Your task to perform on an android device: search for starred emails in the gmail app Image 0: 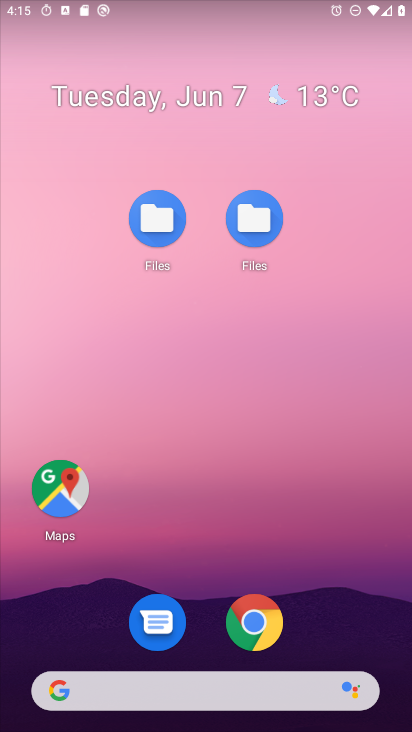
Step 0: drag from (368, 579) to (388, 286)
Your task to perform on an android device: search for starred emails in the gmail app Image 1: 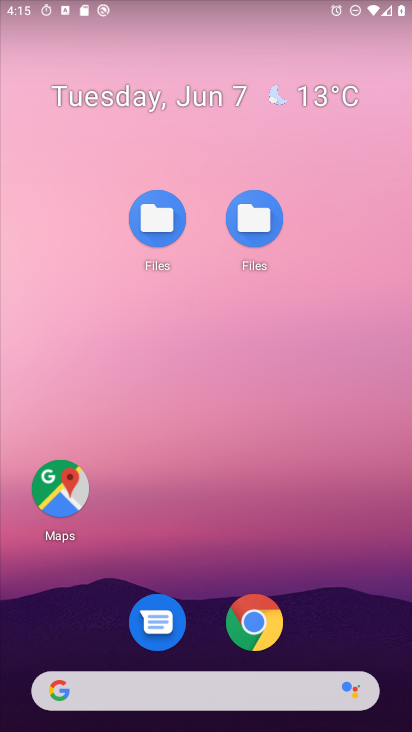
Step 1: drag from (357, 639) to (340, 140)
Your task to perform on an android device: search for starred emails in the gmail app Image 2: 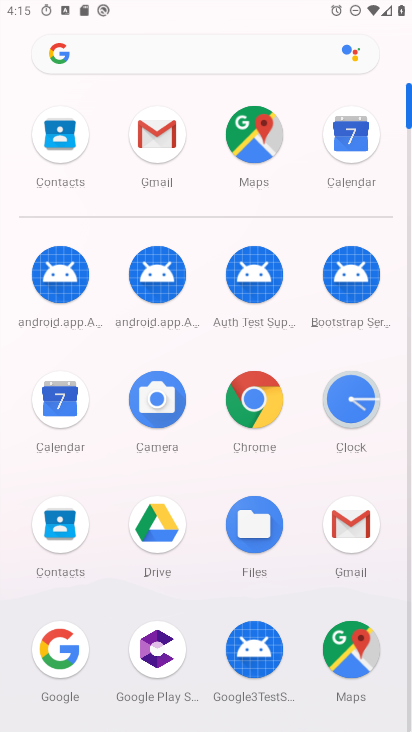
Step 2: click (147, 144)
Your task to perform on an android device: search for starred emails in the gmail app Image 3: 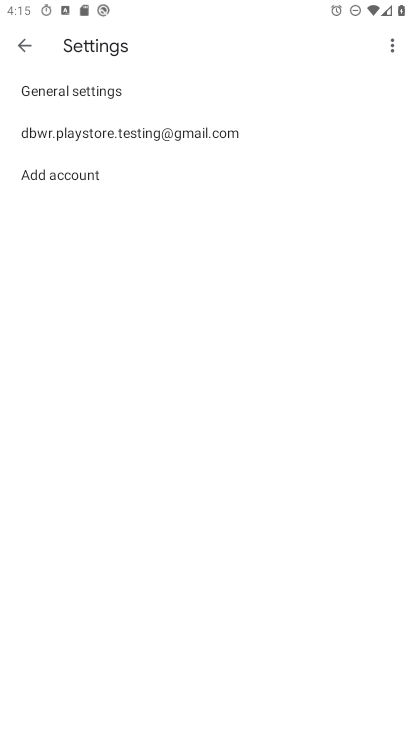
Step 3: click (21, 45)
Your task to perform on an android device: search for starred emails in the gmail app Image 4: 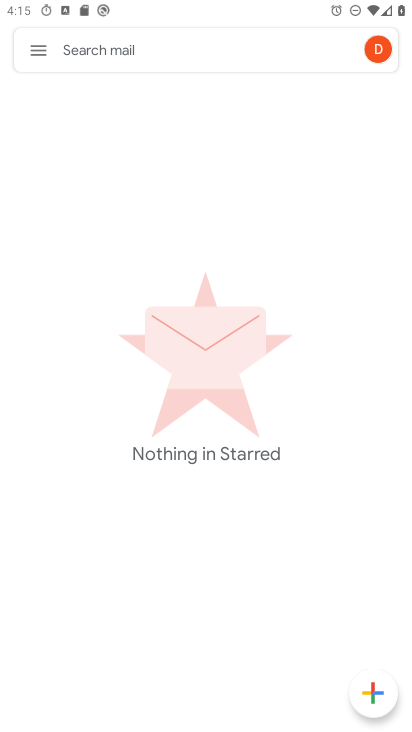
Step 4: click (19, 48)
Your task to perform on an android device: search for starred emails in the gmail app Image 5: 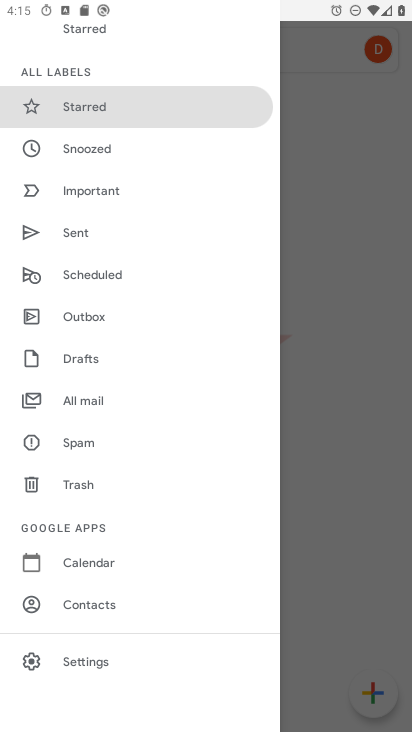
Step 5: click (59, 104)
Your task to perform on an android device: search for starred emails in the gmail app Image 6: 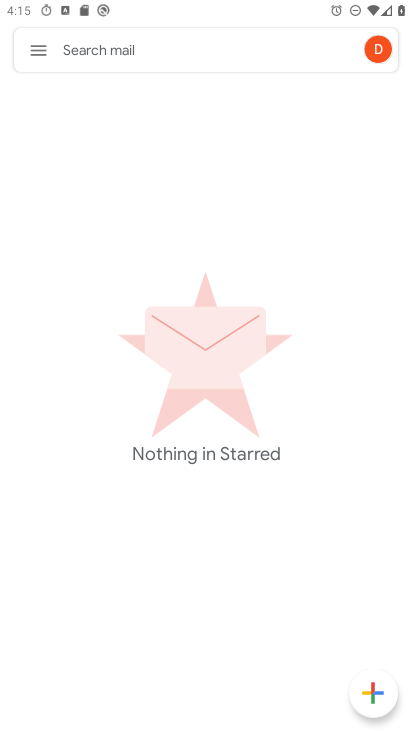
Step 6: task complete